Your task to perform on an android device: Search for seafood restaurants on Google Maps Image 0: 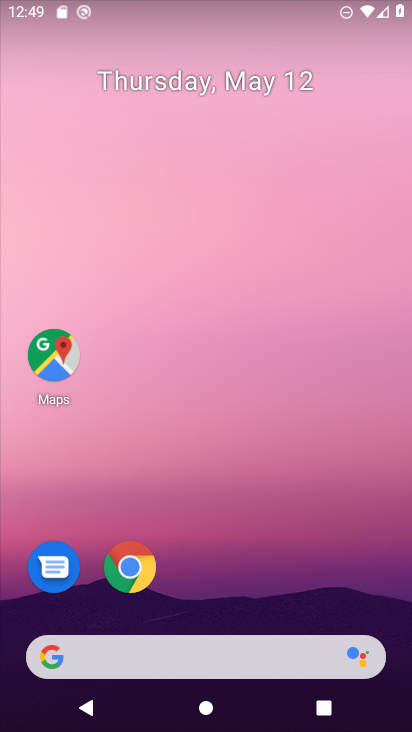
Step 0: click (54, 350)
Your task to perform on an android device: Search for seafood restaurants on Google Maps Image 1: 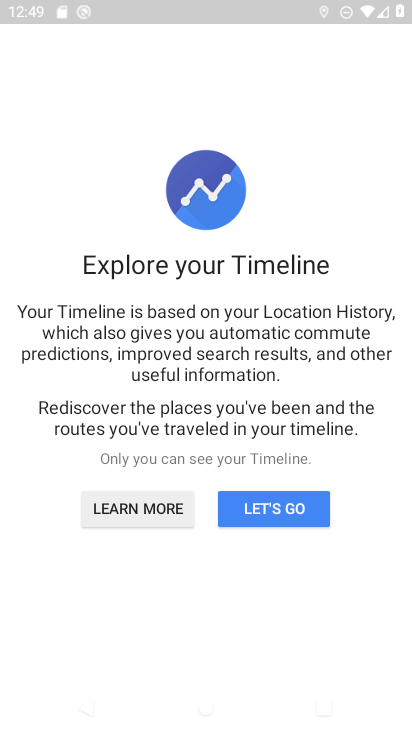
Step 1: press back button
Your task to perform on an android device: Search for seafood restaurants on Google Maps Image 2: 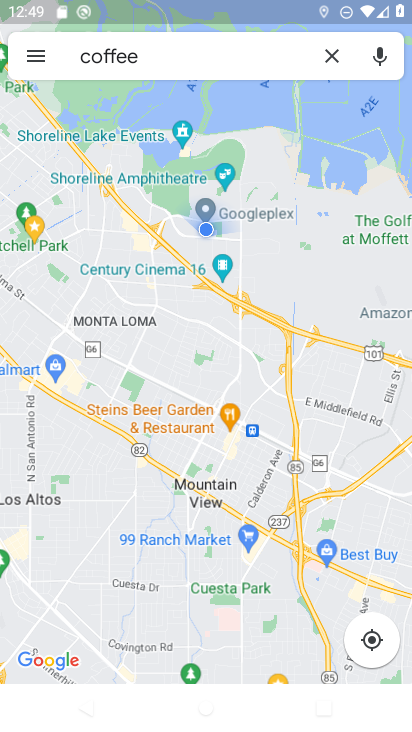
Step 2: click (335, 52)
Your task to perform on an android device: Search for seafood restaurants on Google Maps Image 3: 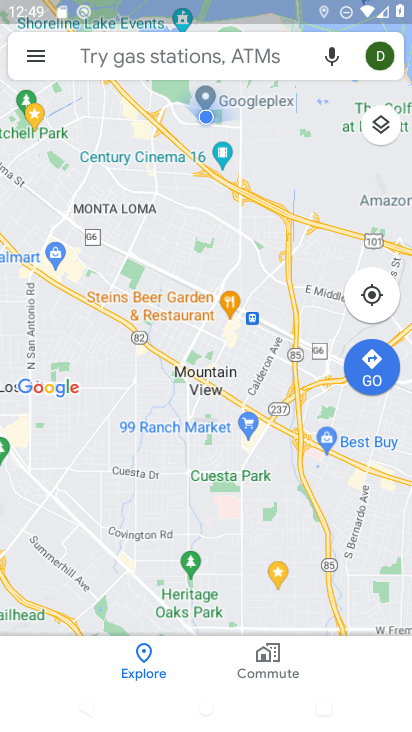
Step 3: click (279, 52)
Your task to perform on an android device: Search for seafood restaurants on Google Maps Image 4: 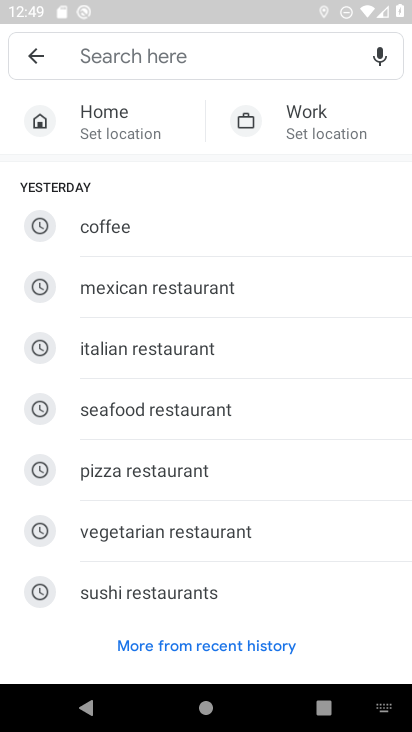
Step 4: click (160, 408)
Your task to perform on an android device: Search for seafood restaurants on Google Maps Image 5: 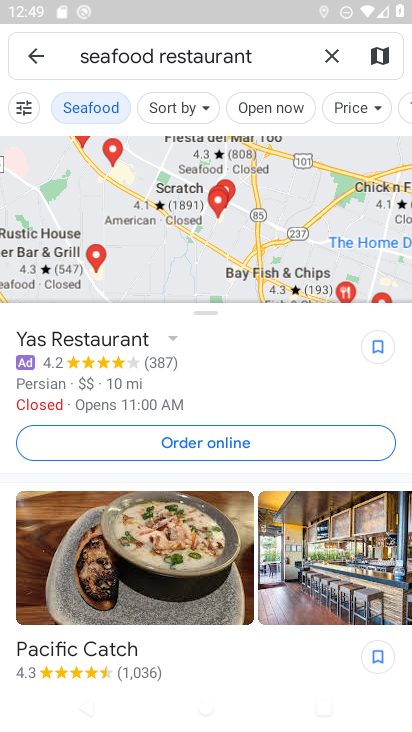
Step 5: task complete